Your task to perform on an android device: stop showing notifications on the lock screen Image 0: 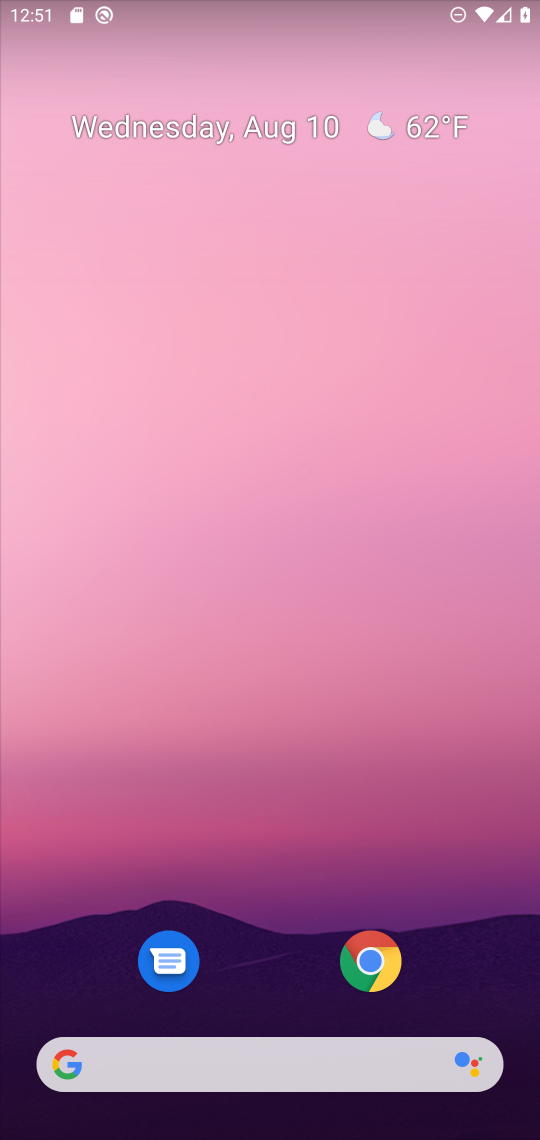
Step 0: drag from (264, 993) to (290, 3)
Your task to perform on an android device: stop showing notifications on the lock screen Image 1: 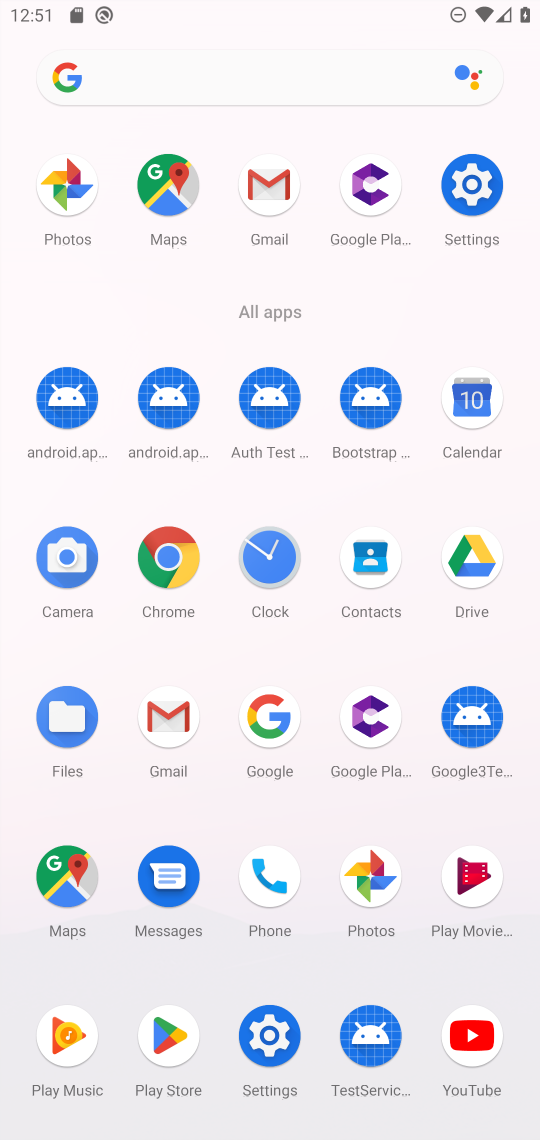
Step 1: click (475, 185)
Your task to perform on an android device: stop showing notifications on the lock screen Image 2: 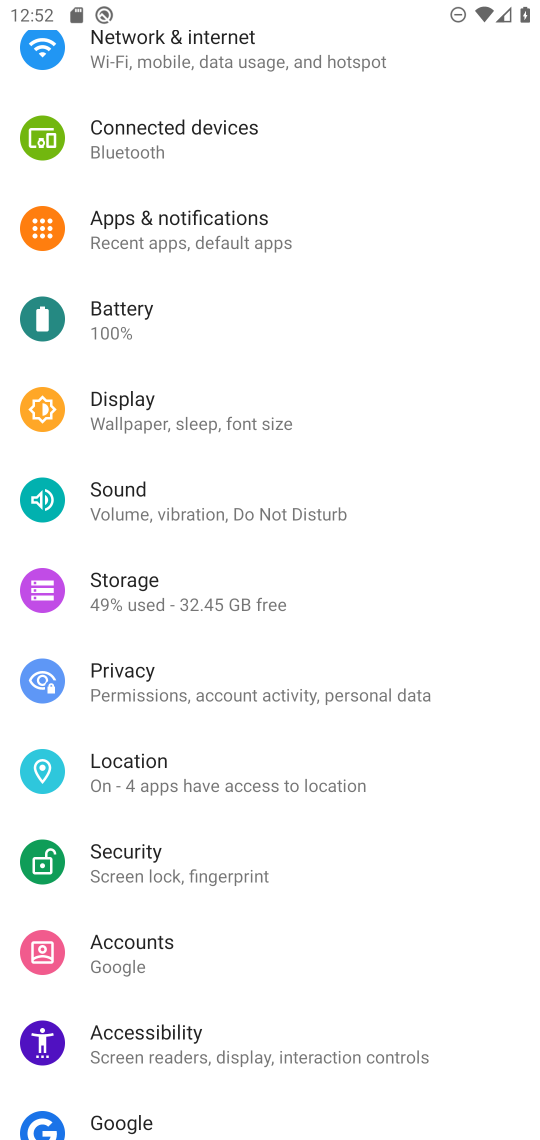
Step 2: click (177, 216)
Your task to perform on an android device: stop showing notifications on the lock screen Image 3: 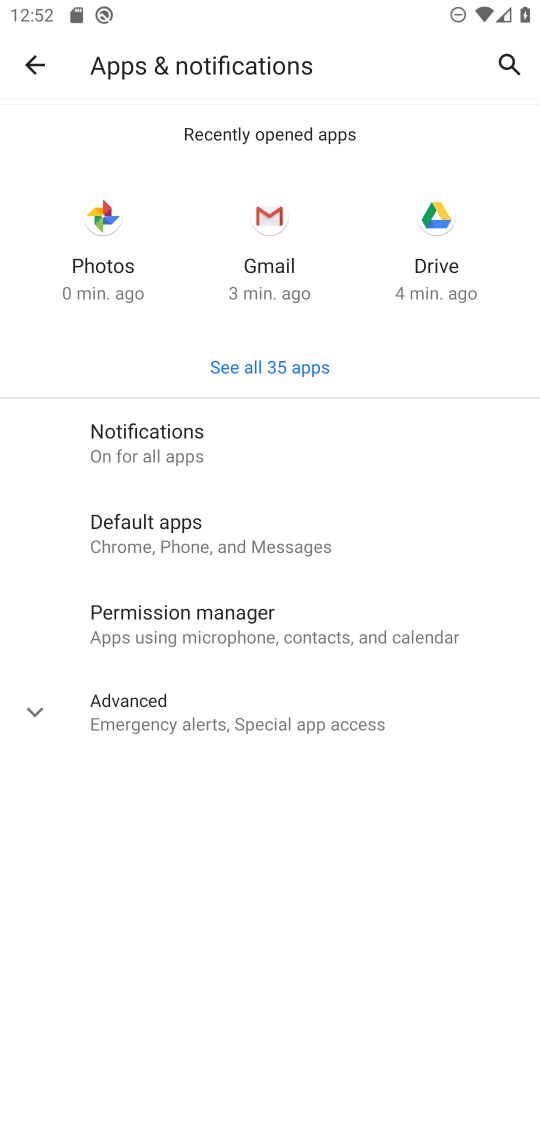
Step 3: click (158, 421)
Your task to perform on an android device: stop showing notifications on the lock screen Image 4: 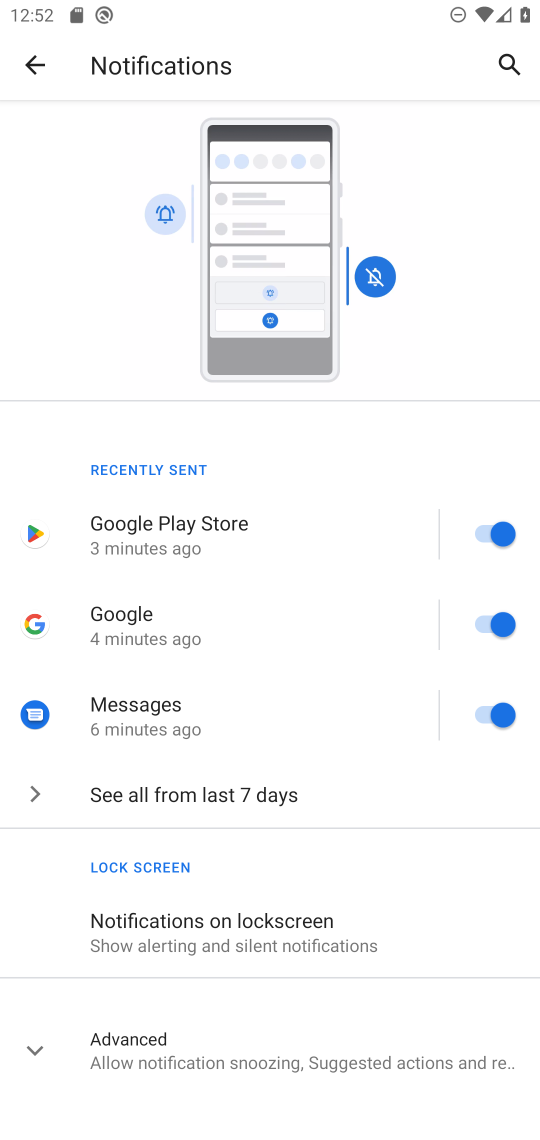
Step 4: click (281, 933)
Your task to perform on an android device: stop showing notifications on the lock screen Image 5: 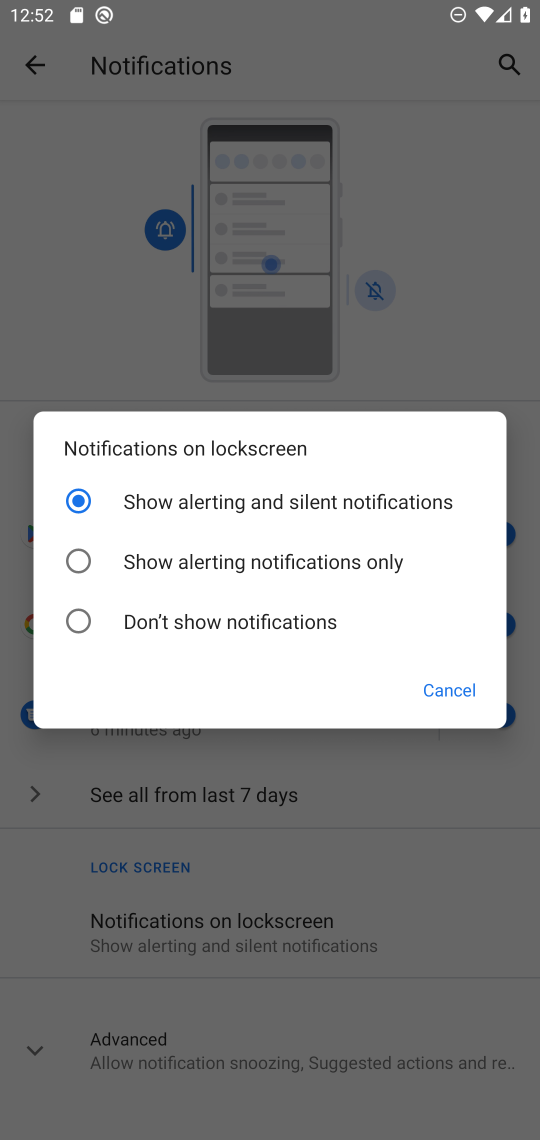
Step 5: click (78, 615)
Your task to perform on an android device: stop showing notifications on the lock screen Image 6: 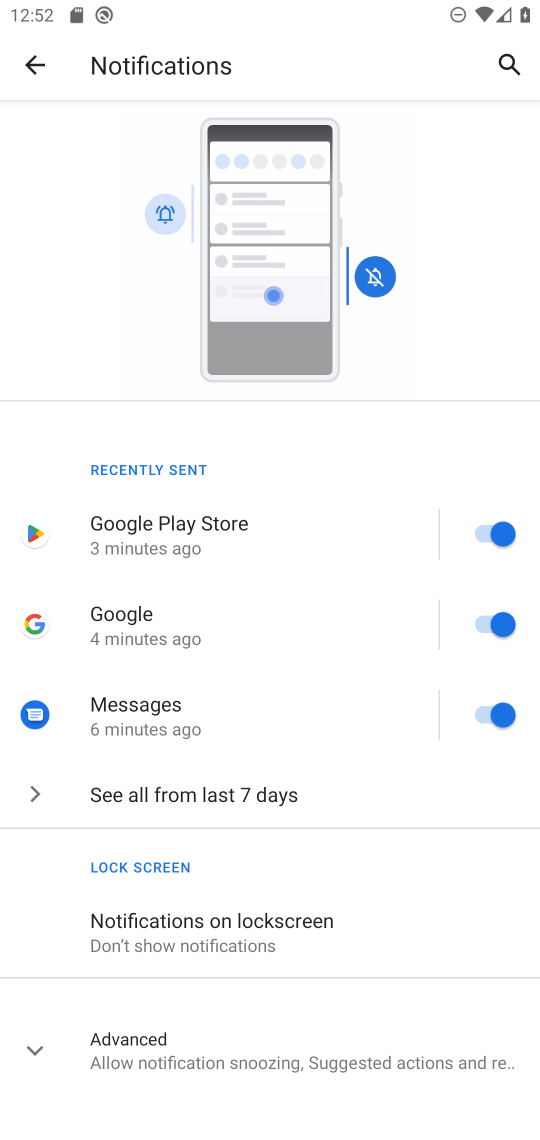
Step 6: task complete